Your task to perform on an android device: Open Android settings Image 0: 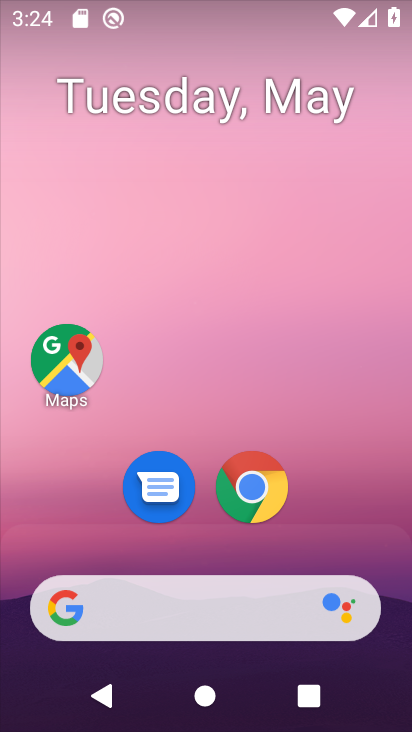
Step 0: drag from (315, 430) to (256, 9)
Your task to perform on an android device: Open Android settings Image 1: 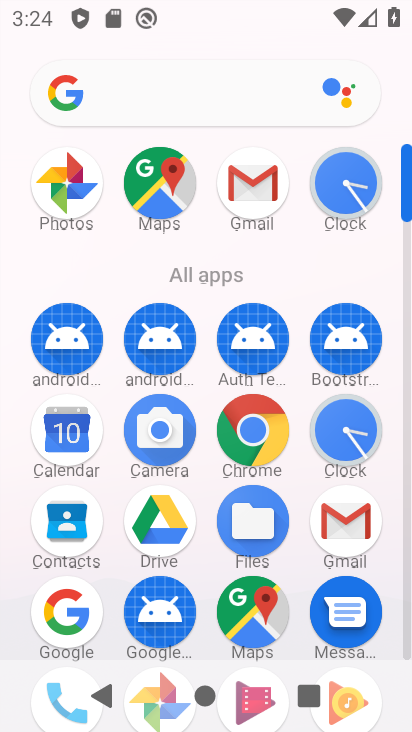
Step 1: drag from (7, 549) to (0, 239)
Your task to perform on an android device: Open Android settings Image 2: 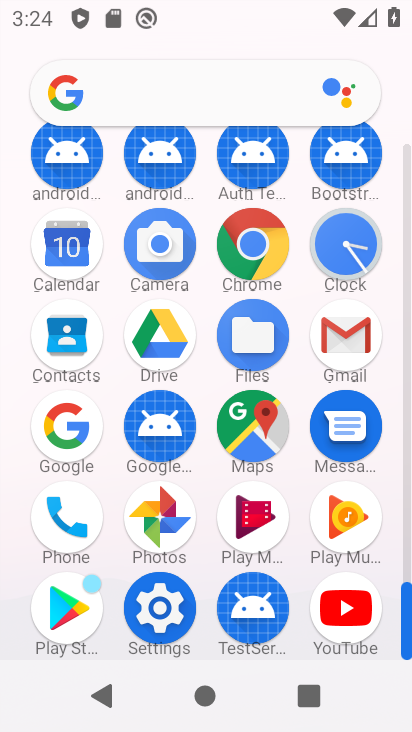
Step 2: click (158, 594)
Your task to perform on an android device: Open Android settings Image 3: 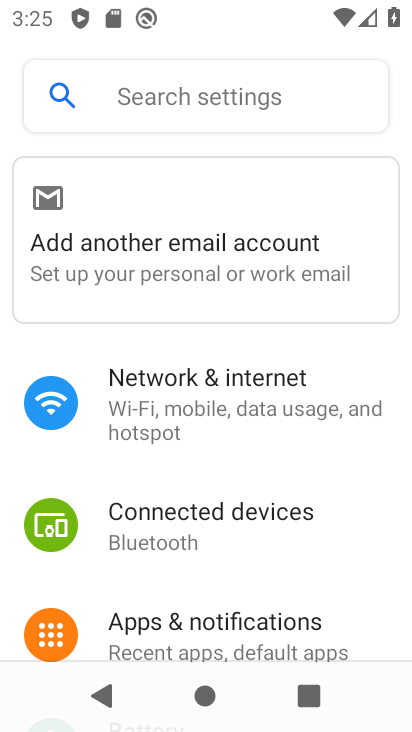
Step 3: task complete